Your task to perform on an android device: delete the emails in spam in the gmail app Image 0: 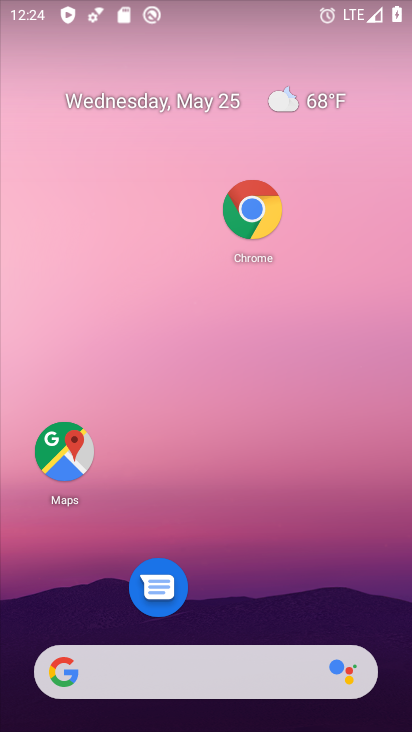
Step 0: drag from (207, 613) to (226, 104)
Your task to perform on an android device: delete the emails in spam in the gmail app Image 1: 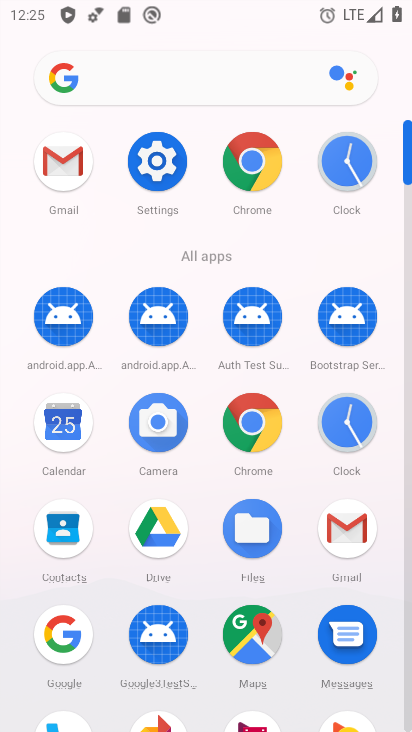
Step 1: click (342, 518)
Your task to perform on an android device: delete the emails in spam in the gmail app Image 2: 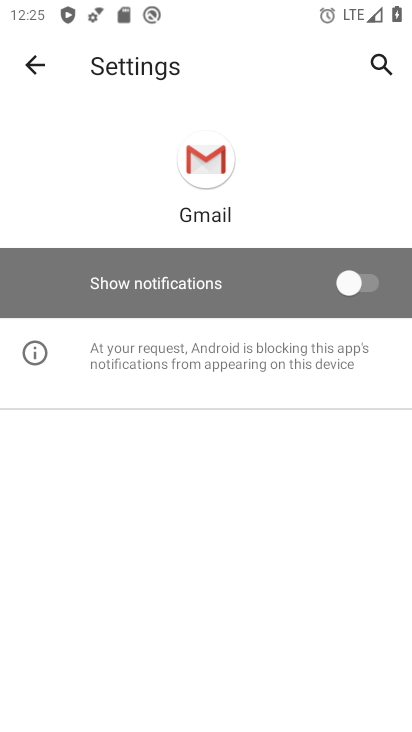
Step 2: click (34, 61)
Your task to perform on an android device: delete the emails in spam in the gmail app Image 3: 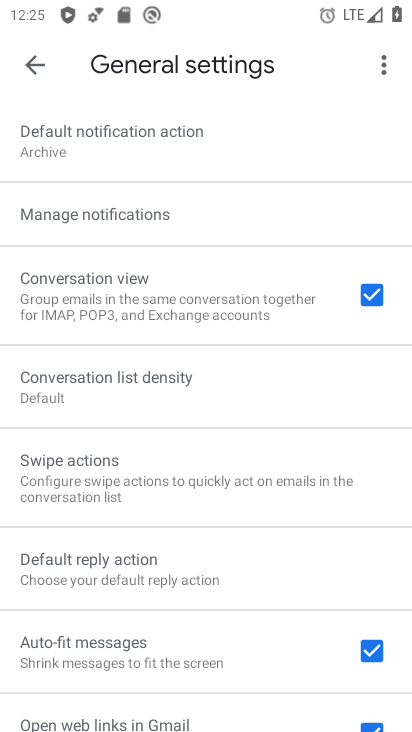
Step 3: click (39, 62)
Your task to perform on an android device: delete the emails in spam in the gmail app Image 4: 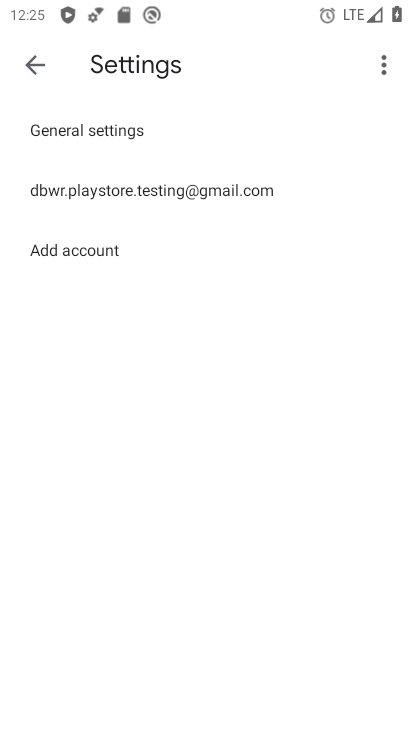
Step 4: click (39, 62)
Your task to perform on an android device: delete the emails in spam in the gmail app Image 5: 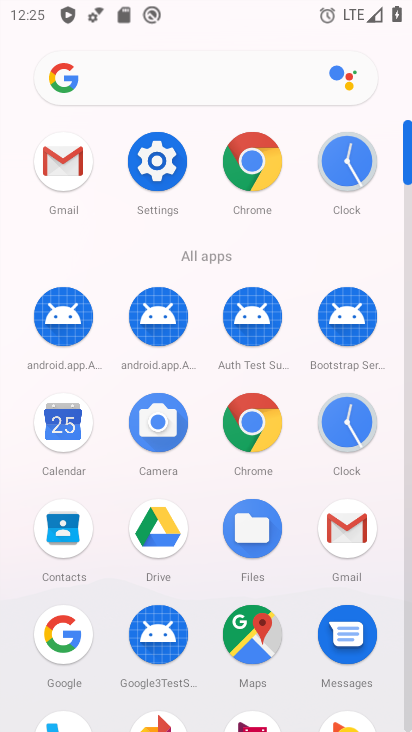
Step 5: click (59, 154)
Your task to perform on an android device: delete the emails in spam in the gmail app Image 6: 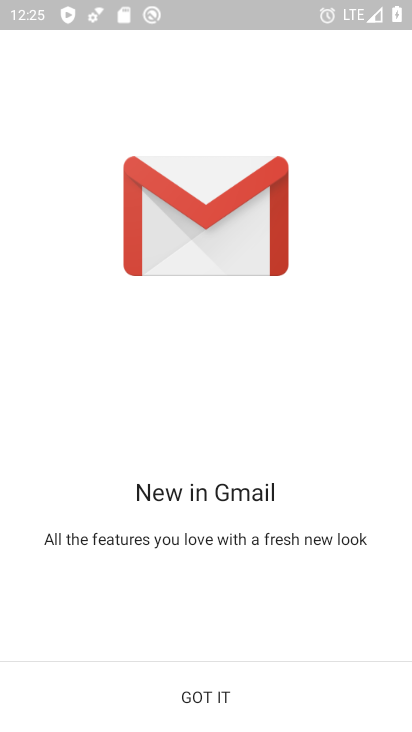
Step 6: task complete